Your task to perform on an android device: set default search engine in the chrome app Image 0: 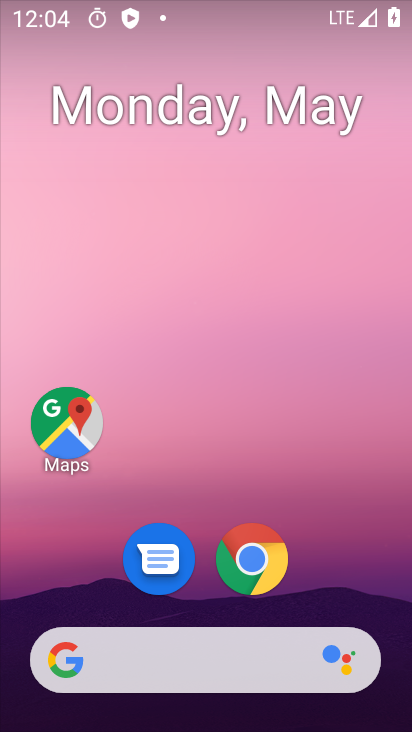
Step 0: drag from (316, 624) to (329, 12)
Your task to perform on an android device: set default search engine in the chrome app Image 1: 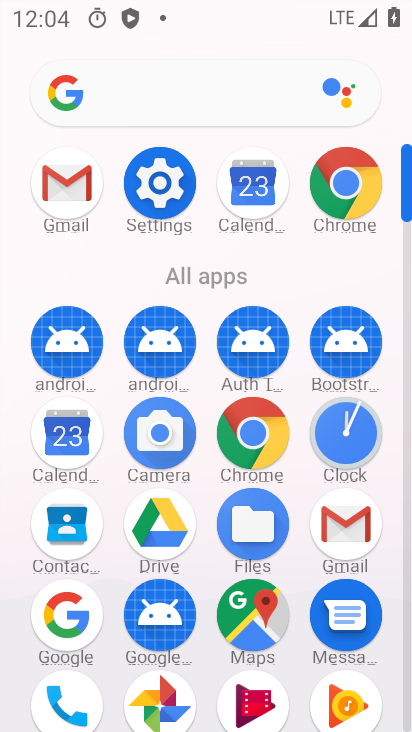
Step 1: click (268, 439)
Your task to perform on an android device: set default search engine in the chrome app Image 2: 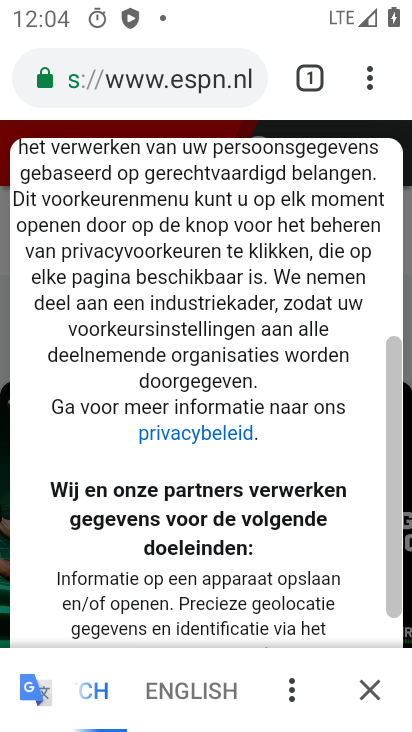
Step 2: drag from (378, 77) to (171, 615)
Your task to perform on an android device: set default search engine in the chrome app Image 3: 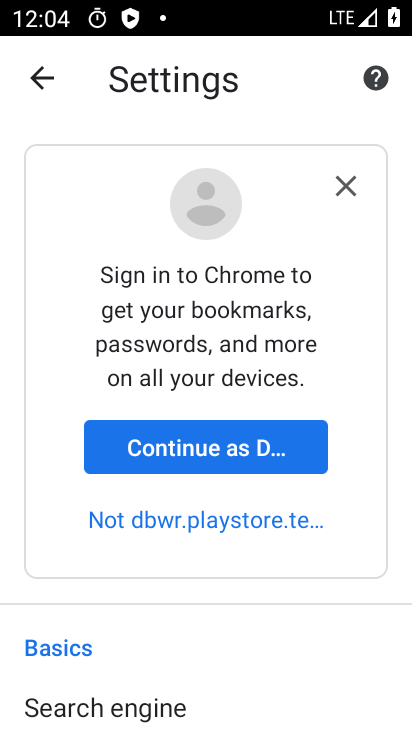
Step 3: drag from (138, 688) to (176, 169)
Your task to perform on an android device: set default search engine in the chrome app Image 4: 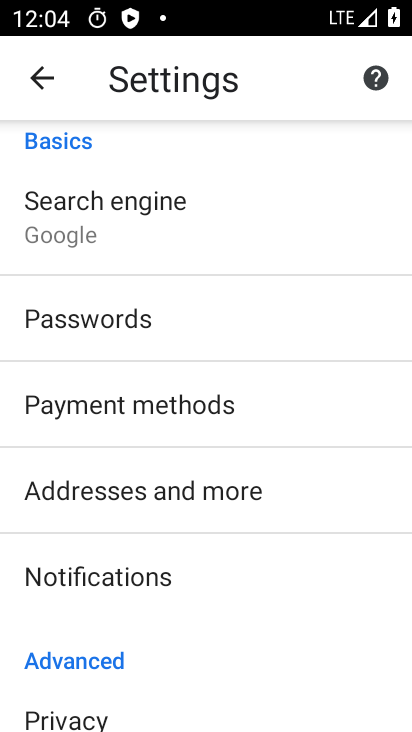
Step 4: click (145, 226)
Your task to perform on an android device: set default search engine in the chrome app Image 5: 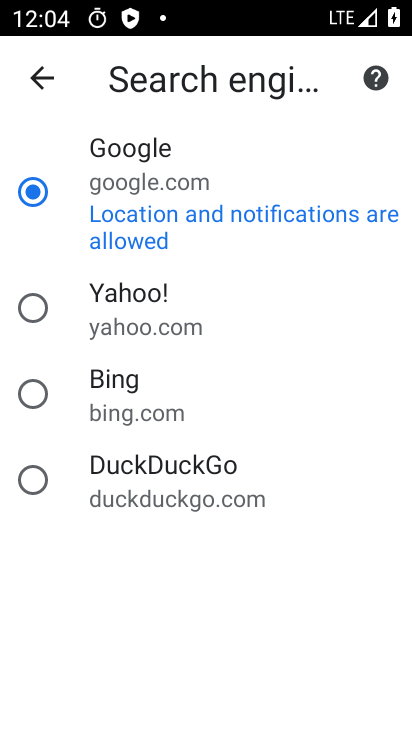
Step 5: task complete